Your task to perform on an android device: Is it going to rain today? Image 0: 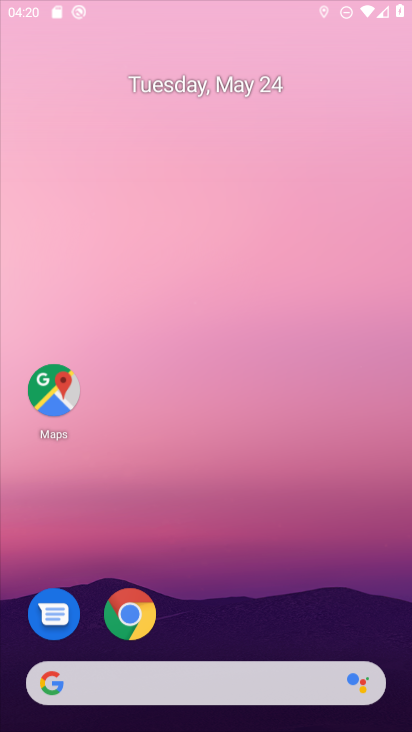
Step 0: click (248, 62)
Your task to perform on an android device: Is it going to rain today? Image 1: 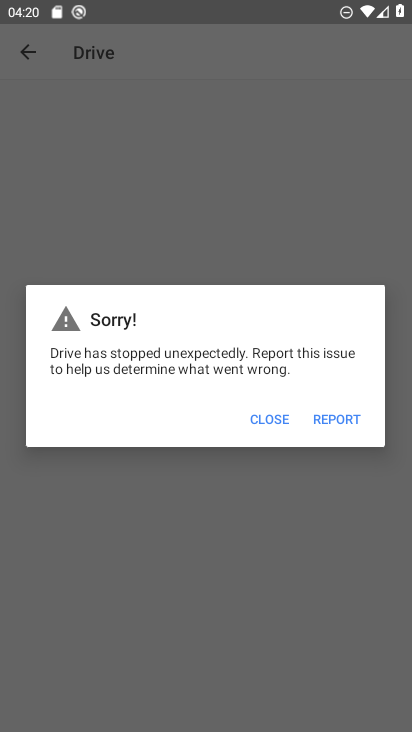
Step 1: press home button
Your task to perform on an android device: Is it going to rain today? Image 2: 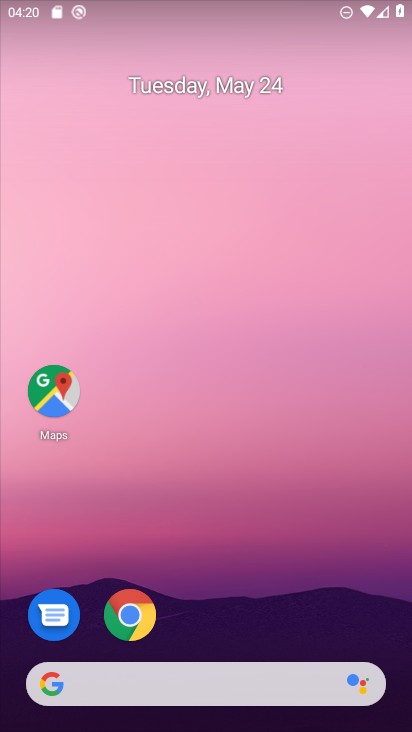
Step 2: drag from (267, 570) to (243, 82)
Your task to perform on an android device: Is it going to rain today? Image 3: 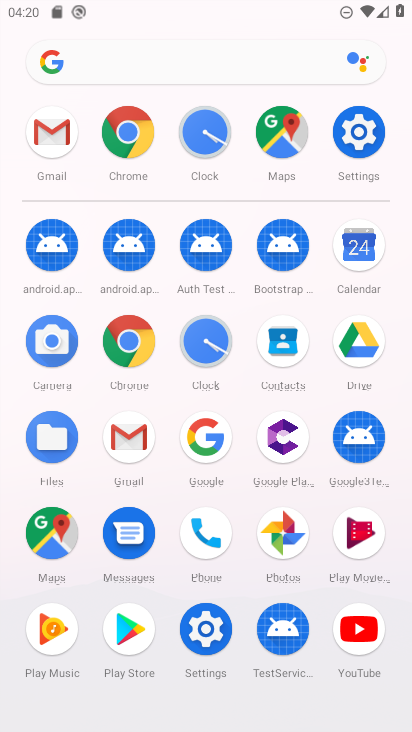
Step 3: click (122, 338)
Your task to perform on an android device: Is it going to rain today? Image 4: 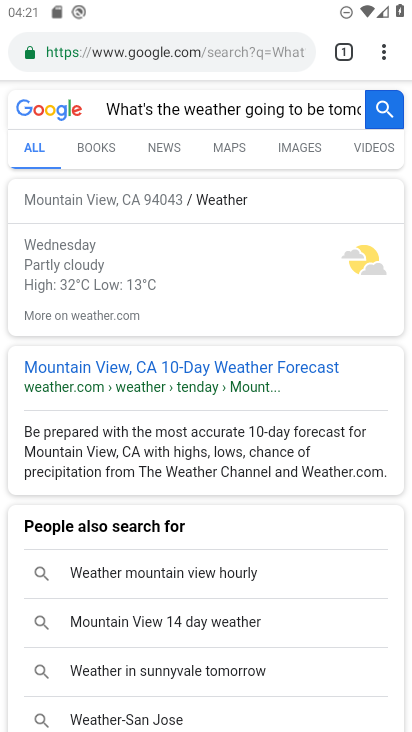
Step 4: click (147, 55)
Your task to perform on an android device: Is it going to rain today? Image 5: 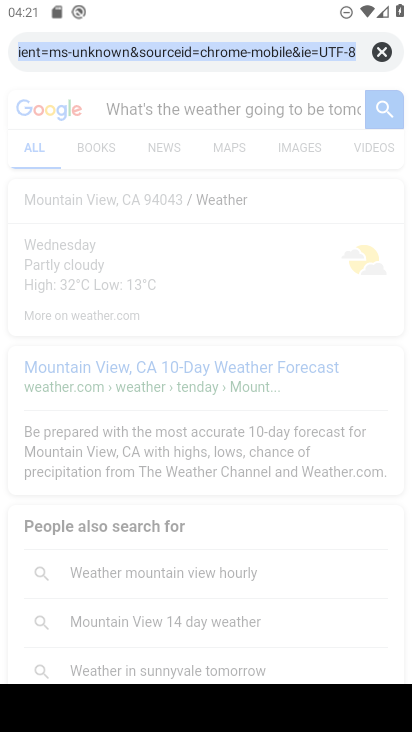
Step 5: click (378, 53)
Your task to perform on an android device: Is it going to rain today? Image 6: 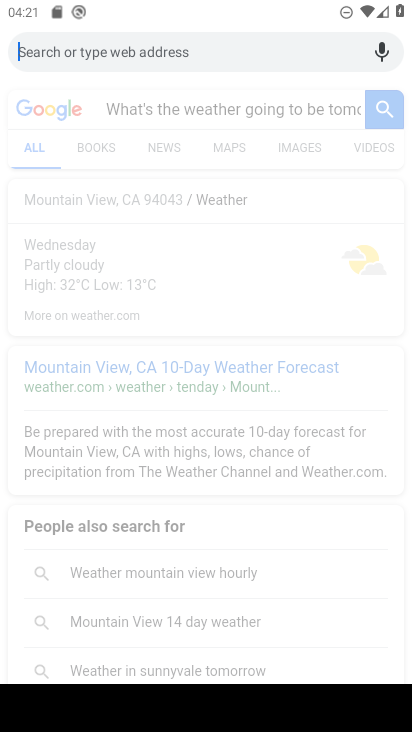
Step 6: type "Is it going to rain today?"
Your task to perform on an android device: Is it going to rain today? Image 7: 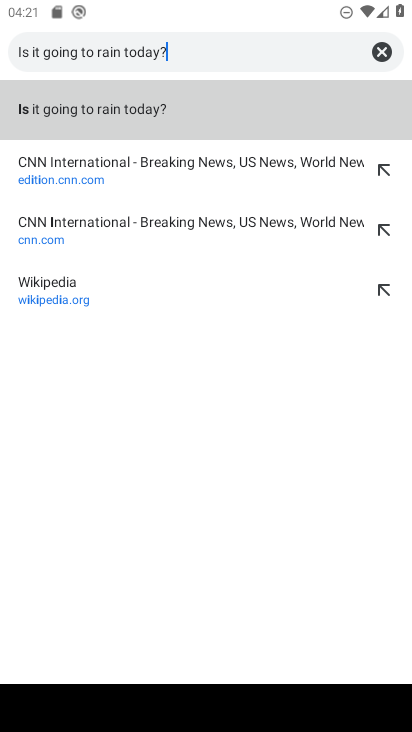
Step 7: type ""
Your task to perform on an android device: Is it going to rain today? Image 8: 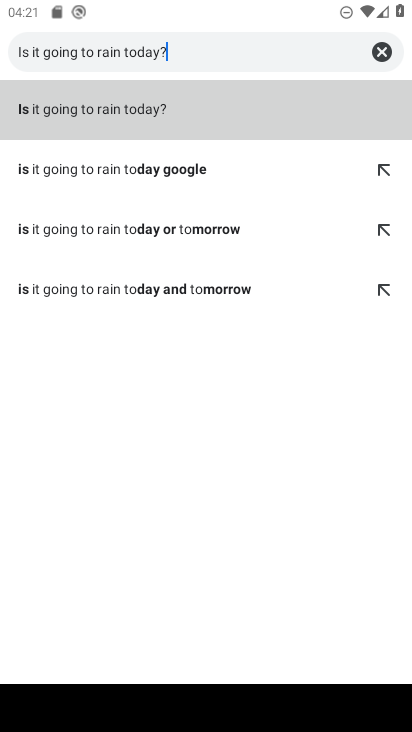
Step 8: click (145, 98)
Your task to perform on an android device: Is it going to rain today? Image 9: 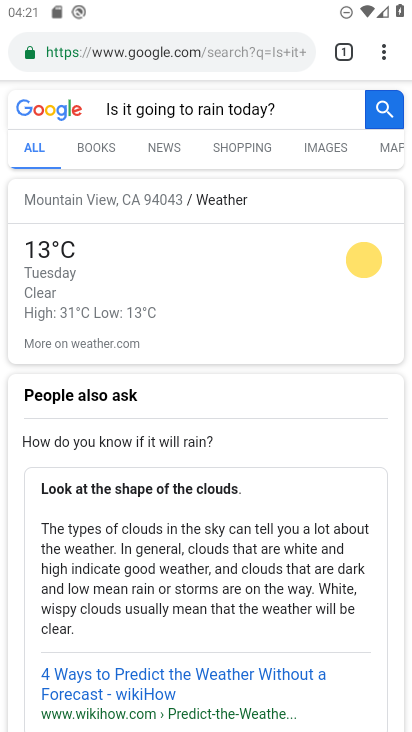
Step 9: task complete